Your task to perform on an android device: Go to CNN.com Image 0: 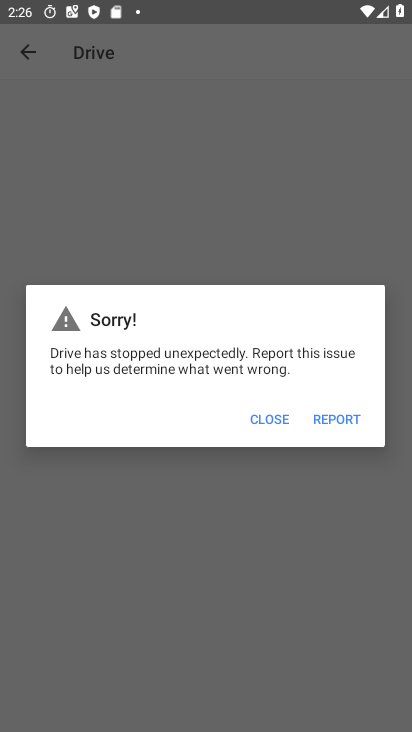
Step 0: press home button
Your task to perform on an android device: Go to CNN.com Image 1: 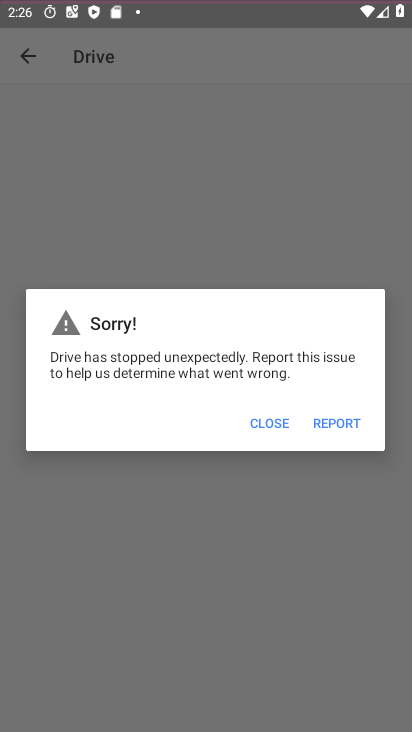
Step 1: drag from (257, 628) to (197, 57)
Your task to perform on an android device: Go to CNN.com Image 2: 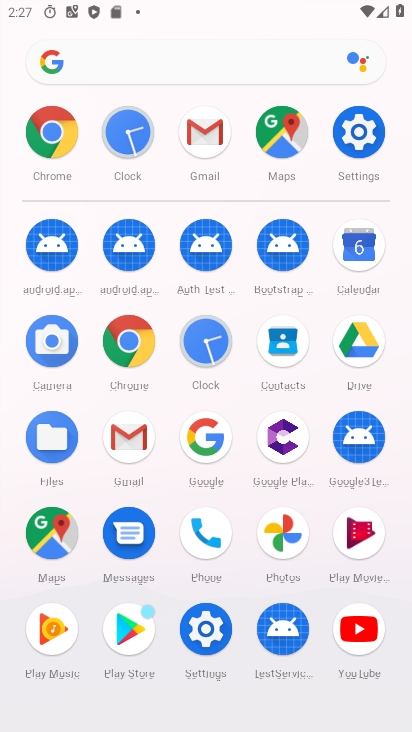
Step 2: click (168, 36)
Your task to perform on an android device: Go to CNN.com Image 3: 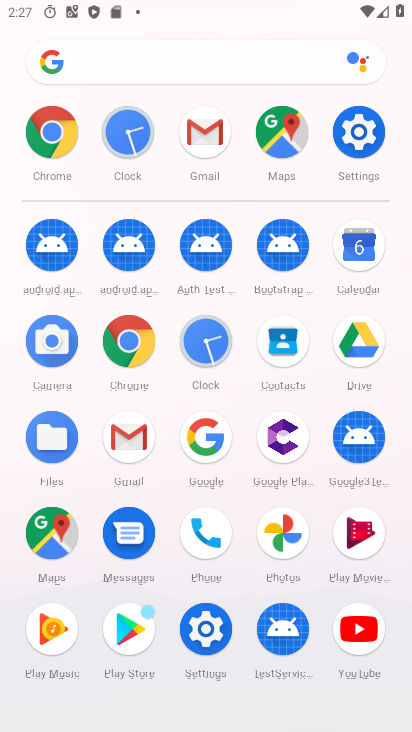
Step 3: click (134, 50)
Your task to perform on an android device: Go to CNN.com Image 4: 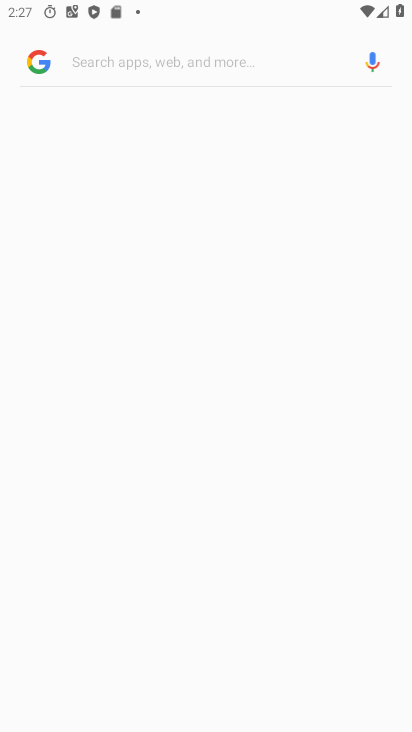
Step 4: click (134, 50)
Your task to perform on an android device: Go to CNN.com Image 5: 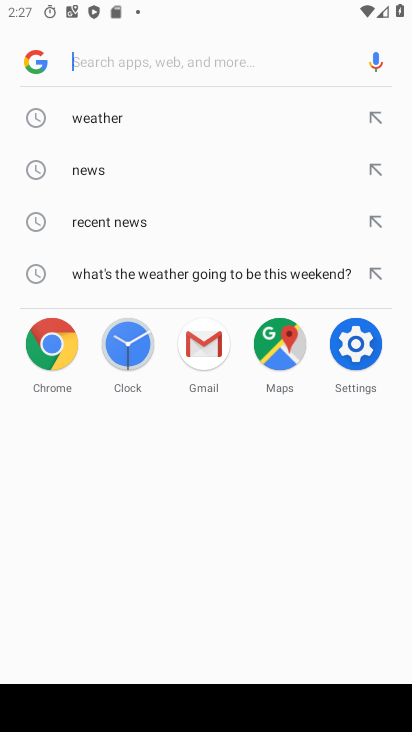
Step 5: type "CNN.com"
Your task to perform on an android device: Go to CNN.com Image 6: 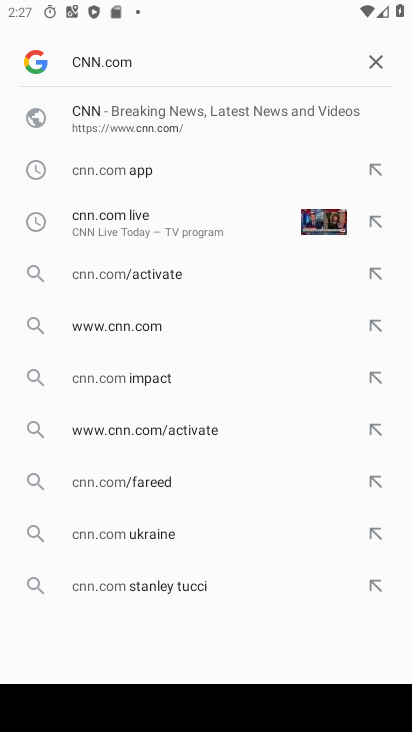
Step 6: click (131, 131)
Your task to perform on an android device: Go to CNN.com Image 7: 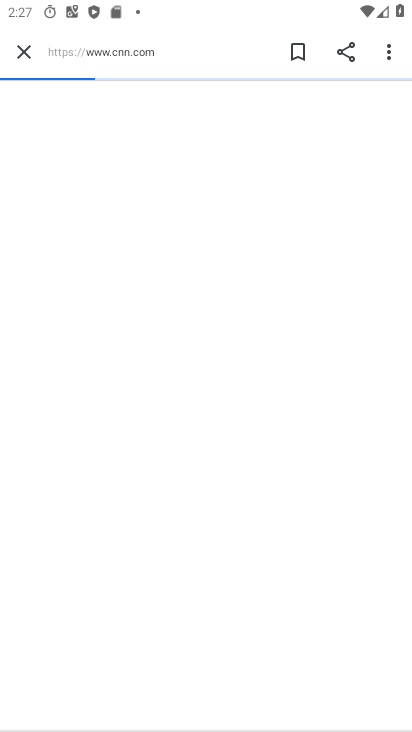
Step 7: click (111, 119)
Your task to perform on an android device: Go to CNN.com Image 8: 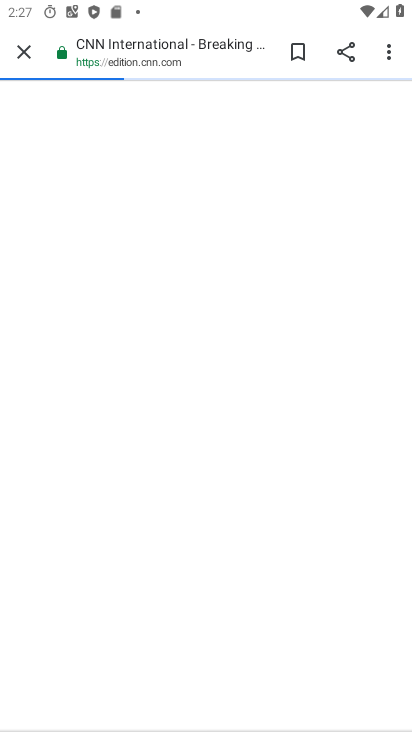
Step 8: task complete